Your task to perform on an android device: delete location history Image 0: 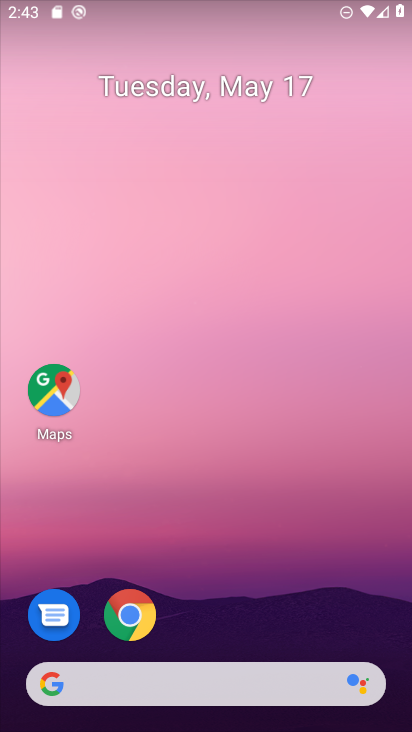
Step 0: drag from (205, 728) to (189, 232)
Your task to perform on an android device: delete location history Image 1: 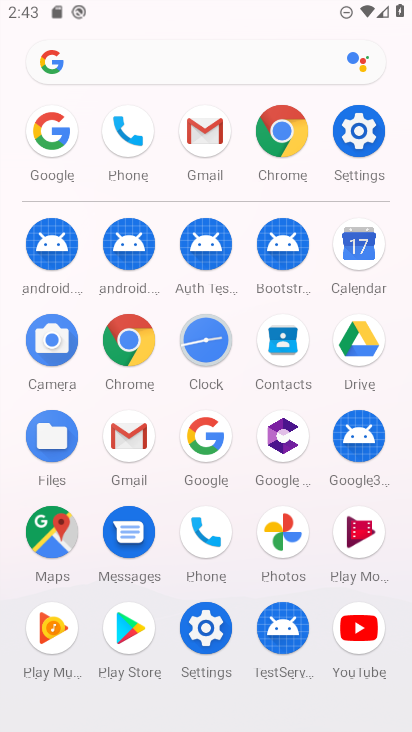
Step 1: click (41, 534)
Your task to perform on an android device: delete location history Image 2: 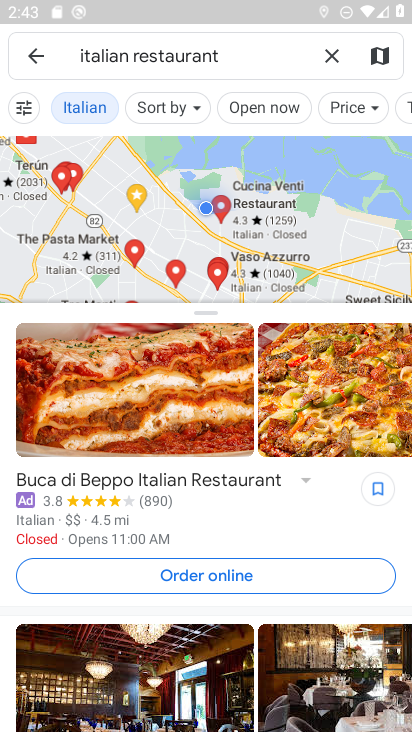
Step 2: click (41, 51)
Your task to perform on an android device: delete location history Image 3: 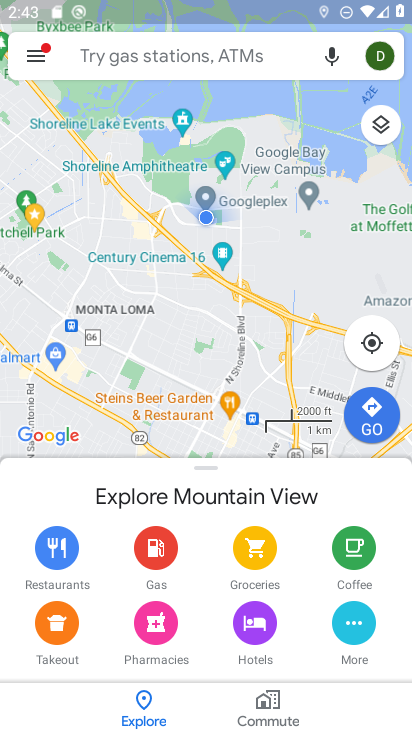
Step 3: click (36, 52)
Your task to perform on an android device: delete location history Image 4: 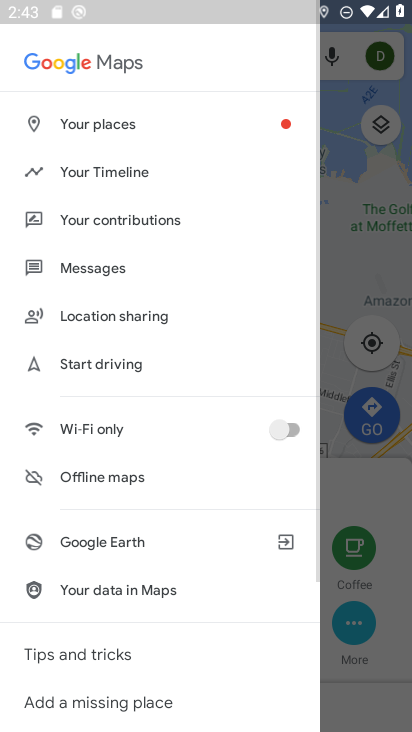
Step 4: drag from (96, 639) to (106, 606)
Your task to perform on an android device: delete location history Image 5: 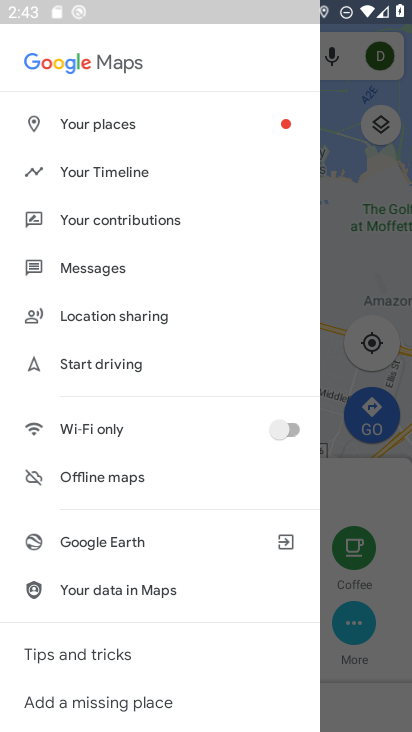
Step 5: click (104, 168)
Your task to perform on an android device: delete location history Image 6: 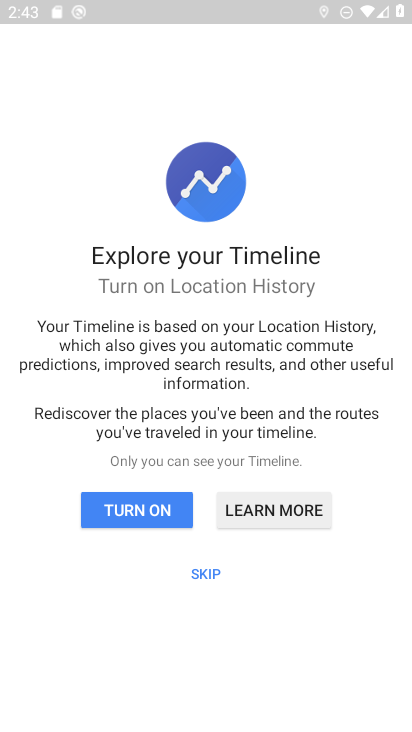
Step 6: click (208, 565)
Your task to perform on an android device: delete location history Image 7: 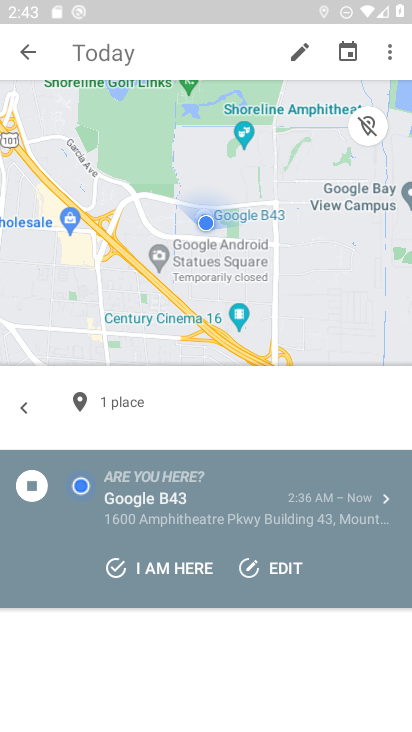
Step 7: click (390, 55)
Your task to perform on an android device: delete location history Image 8: 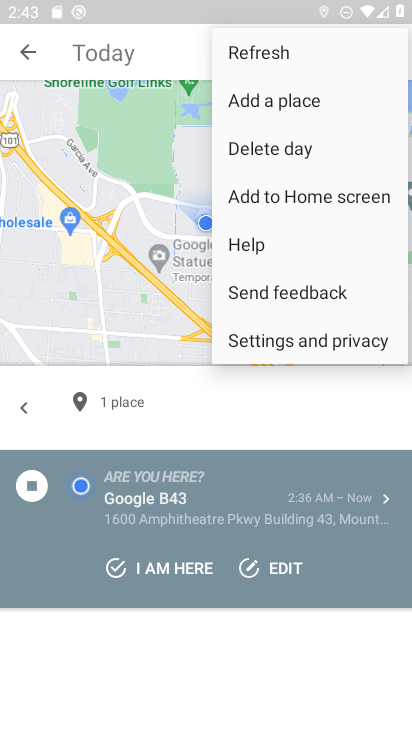
Step 8: click (266, 335)
Your task to perform on an android device: delete location history Image 9: 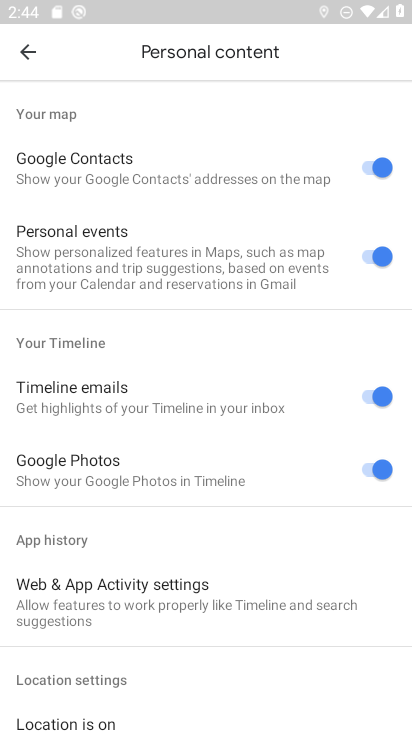
Step 9: drag from (239, 633) to (248, 313)
Your task to perform on an android device: delete location history Image 10: 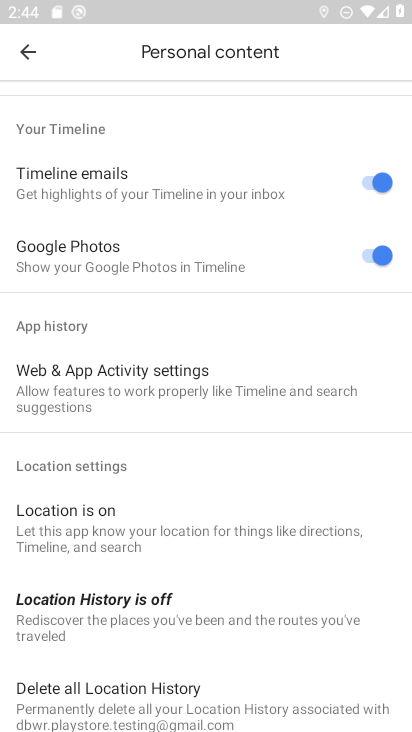
Step 10: click (115, 694)
Your task to perform on an android device: delete location history Image 11: 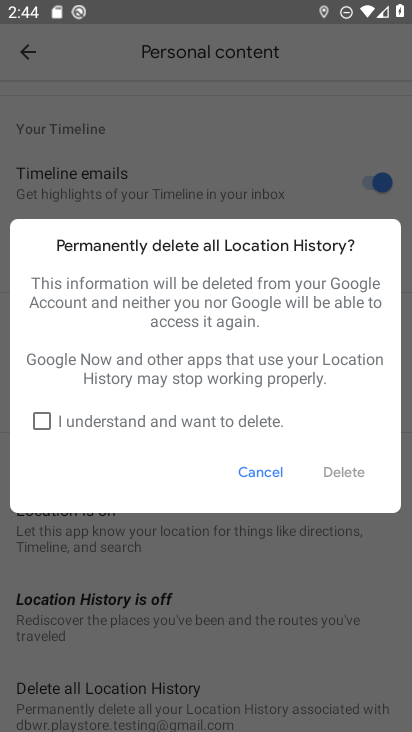
Step 11: click (41, 420)
Your task to perform on an android device: delete location history Image 12: 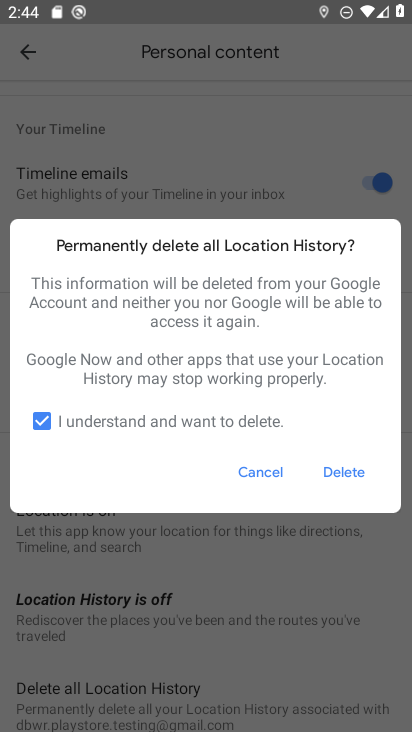
Step 12: click (347, 470)
Your task to perform on an android device: delete location history Image 13: 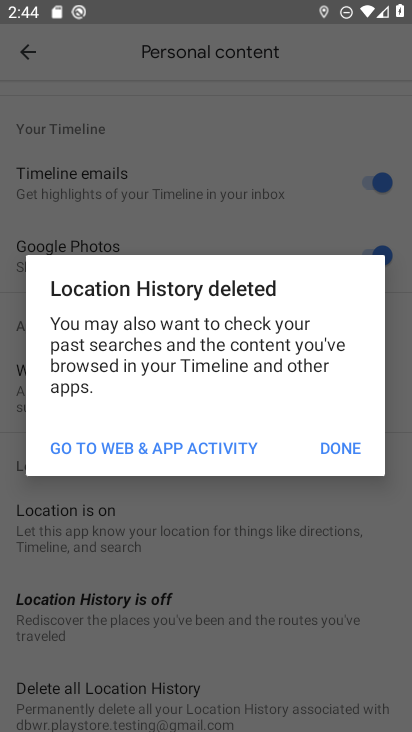
Step 13: click (342, 449)
Your task to perform on an android device: delete location history Image 14: 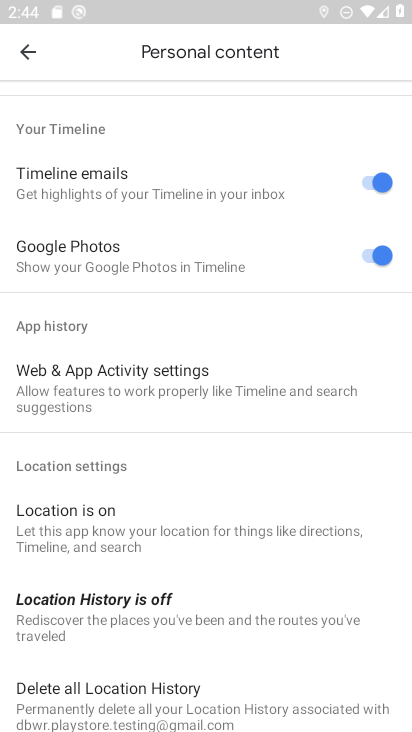
Step 14: task complete